Your task to perform on an android device: visit the assistant section in the google photos Image 0: 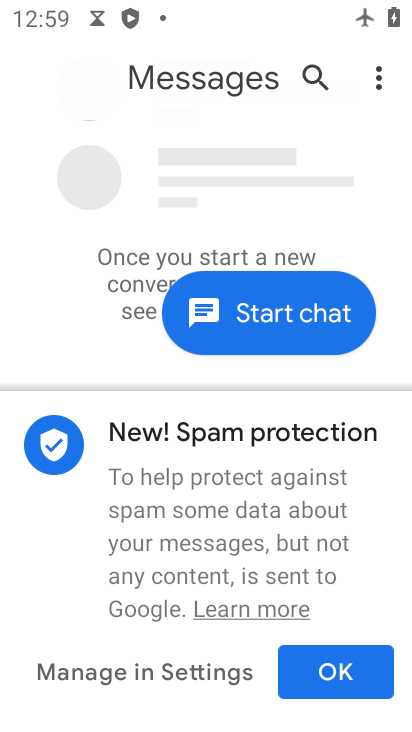
Step 0: press home button
Your task to perform on an android device: visit the assistant section in the google photos Image 1: 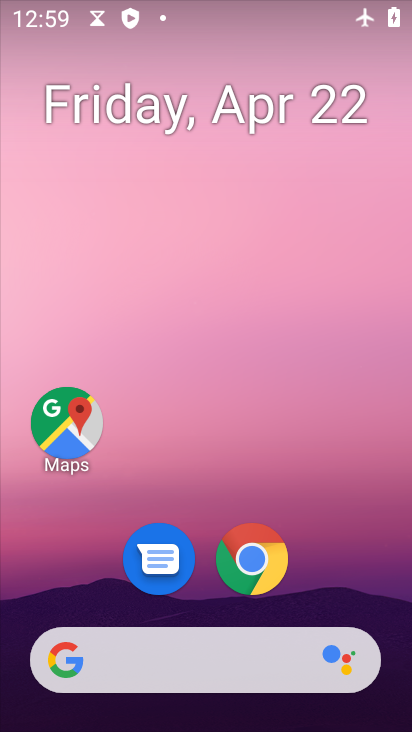
Step 1: drag from (259, 564) to (304, 228)
Your task to perform on an android device: visit the assistant section in the google photos Image 2: 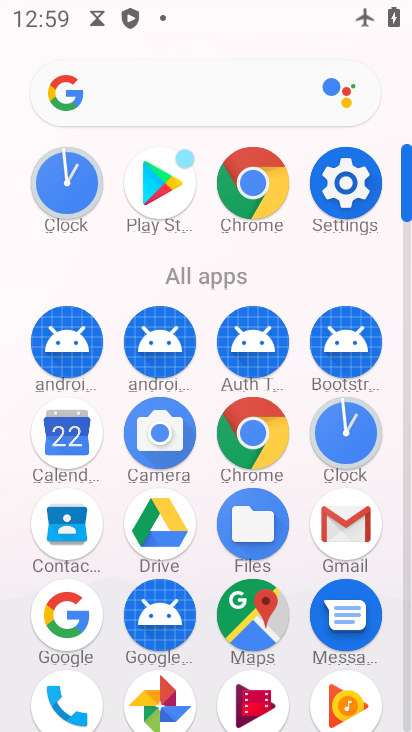
Step 2: drag from (118, 603) to (141, 448)
Your task to perform on an android device: visit the assistant section in the google photos Image 3: 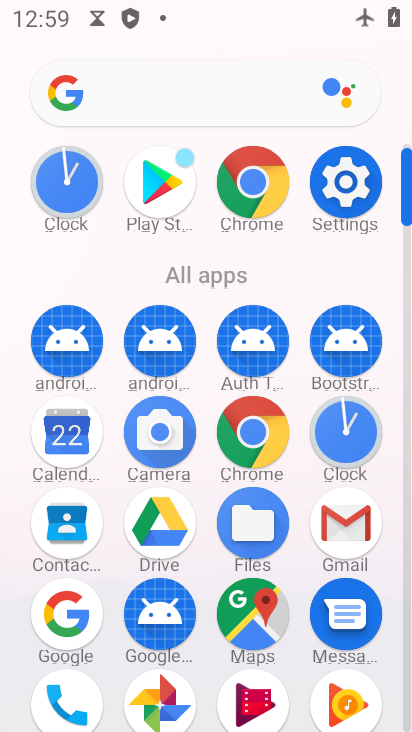
Step 3: drag from (144, 603) to (174, 350)
Your task to perform on an android device: visit the assistant section in the google photos Image 4: 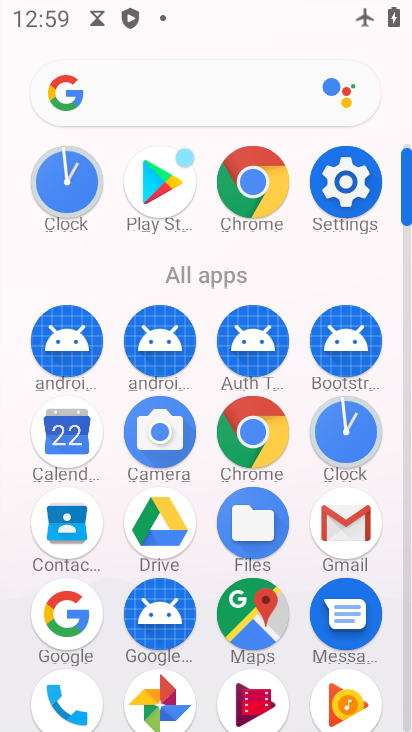
Step 4: click (165, 698)
Your task to perform on an android device: visit the assistant section in the google photos Image 5: 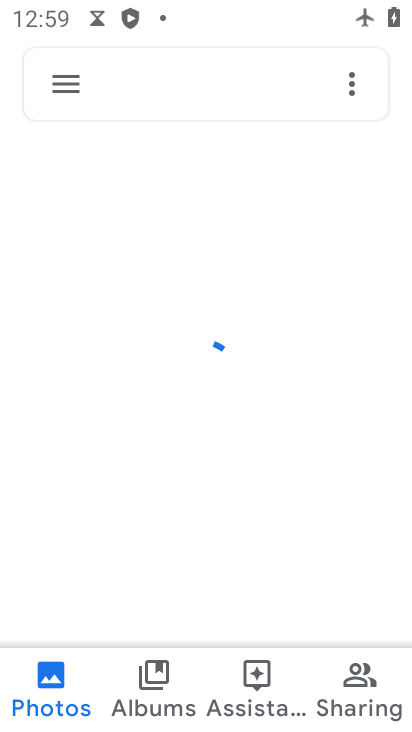
Step 5: click (249, 688)
Your task to perform on an android device: visit the assistant section in the google photos Image 6: 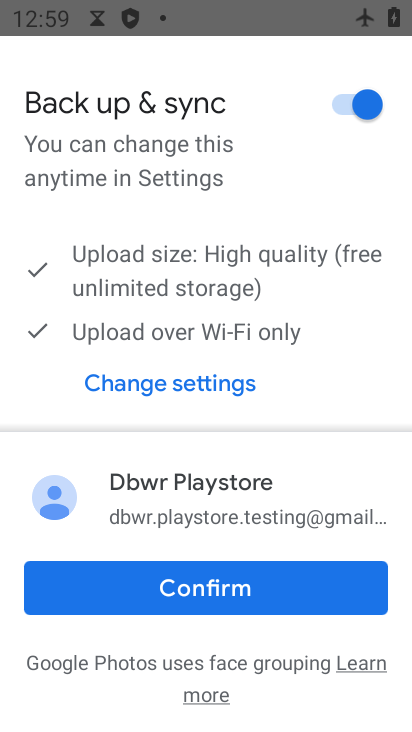
Step 6: click (193, 585)
Your task to perform on an android device: visit the assistant section in the google photos Image 7: 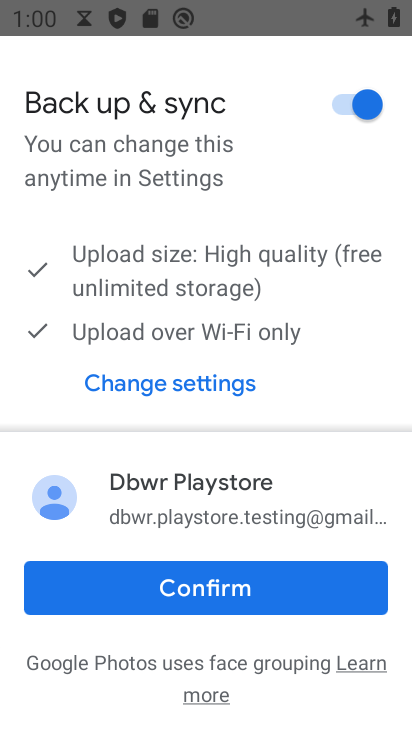
Step 7: click (199, 591)
Your task to perform on an android device: visit the assistant section in the google photos Image 8: 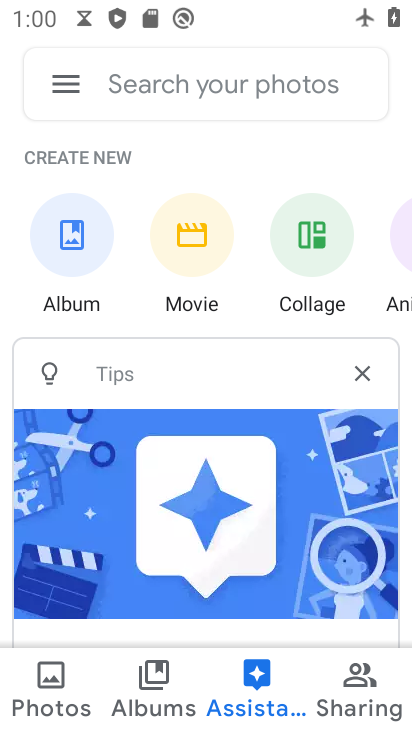
Step 8: task complete